Your task to perform on an android device: turn off sleep mode Image 0: 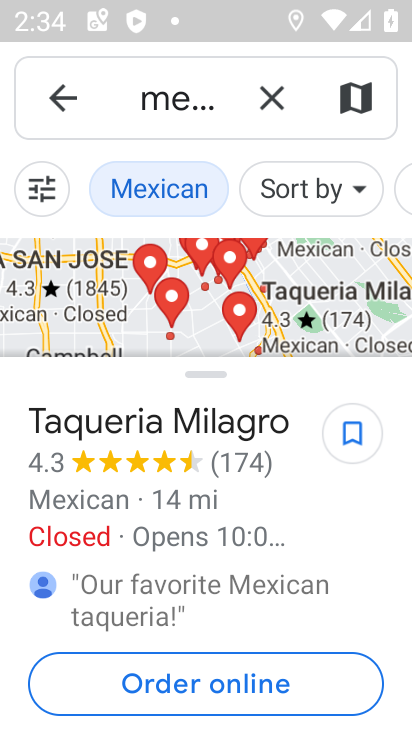
Step 0: press back button
Your task to perform on an android device: turn off sleep mode Image 1: 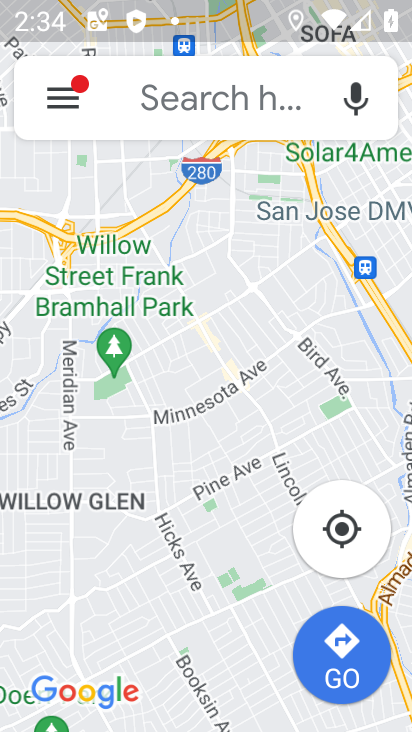
Step 1: press back button
Your task to perform on an android device: turn off sleep mode Image 2: 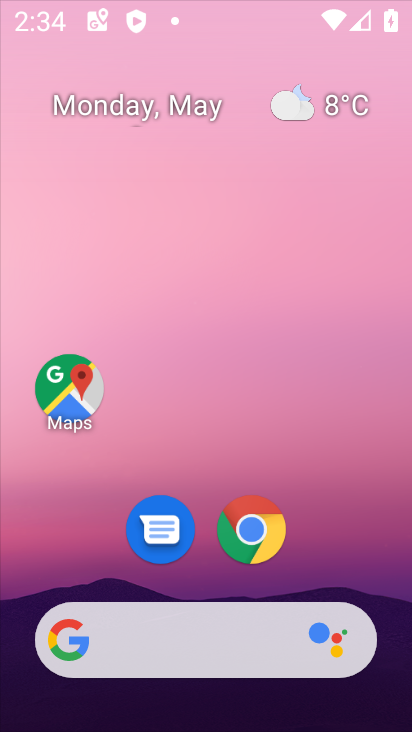
Step 2: press home button
Your task to perform on an android device: turn off sleep mode Image 3: 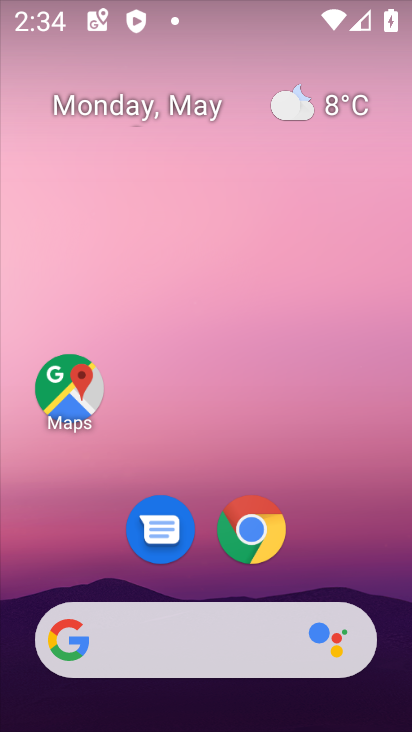
Step 3: drag from (103, 624) to (153, 462)
Your task to perform on an android device: turn off sleep mode Image 4: 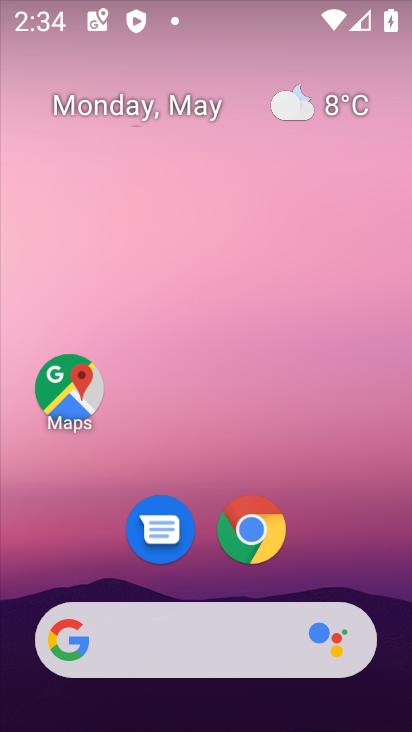
Step 4: drag from (76, 594) to (174, 274)
Your task to perform on an android device: turn off sleep mode Image 5: 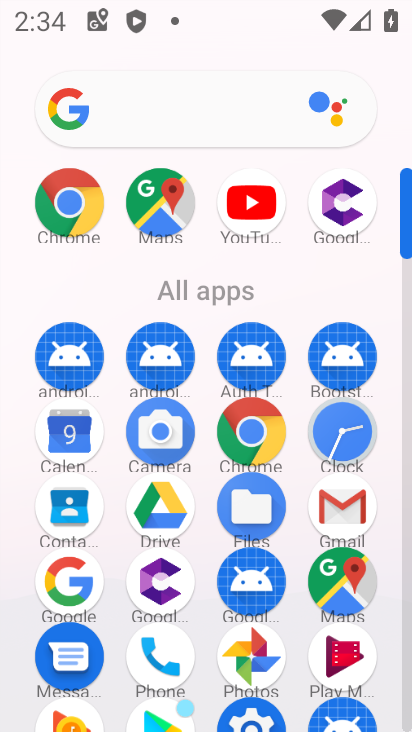
Step 5: click (242, 644)
Your task to perform on an android device: turn off sleep mode Image 6: 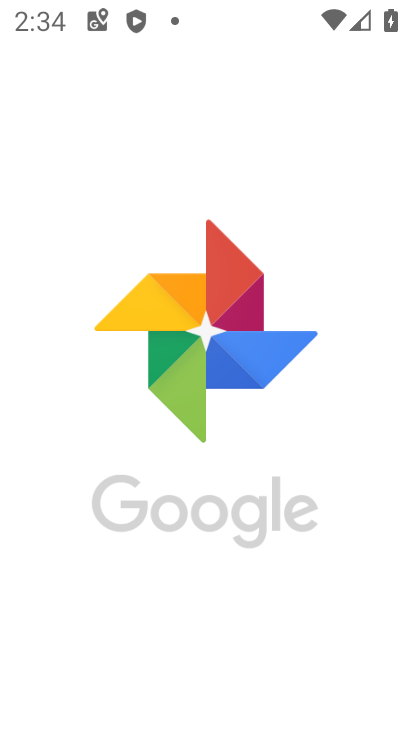
Step 6: drag from (185, 647) to (201, 583)
Your task to perform on an android device: turn off sleep mode Image 7: 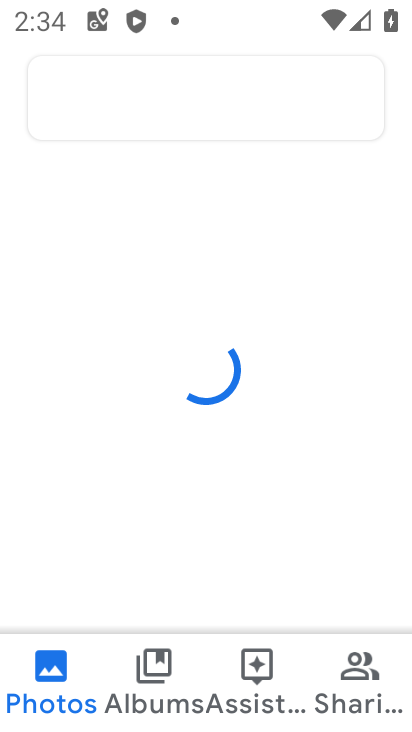
Step 7: press back button
Your task to perform on an android device: turn off sleep mode Image 8: 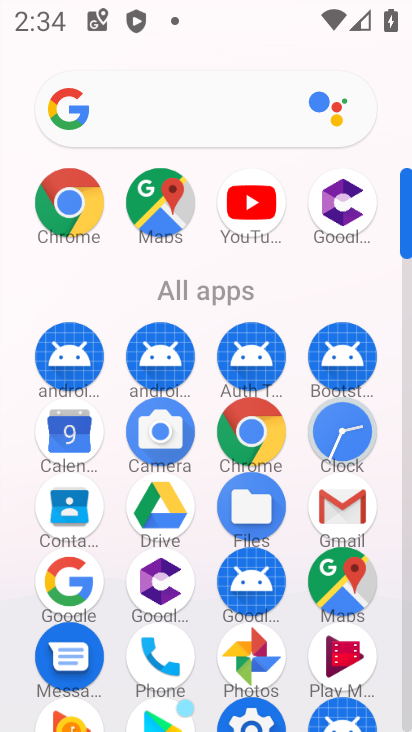
Step 8: drag from (192, 630) to (240, 450)
Your task to perform on an android device: turn off sleep mode Image 9: 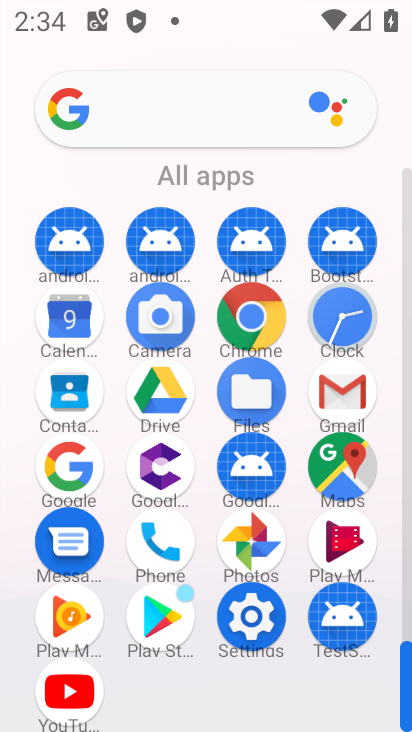
Step 9: click (261, 630)
Your task to perform on an android device: turn off sleep mode Image 10: 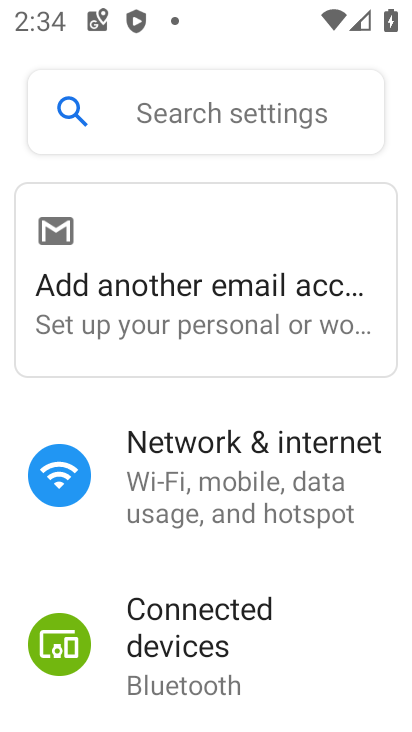
Step 10: drag from (261, 630) to (306, 527)
Your task to perform on an android device: turn off sleep mode Image 11: 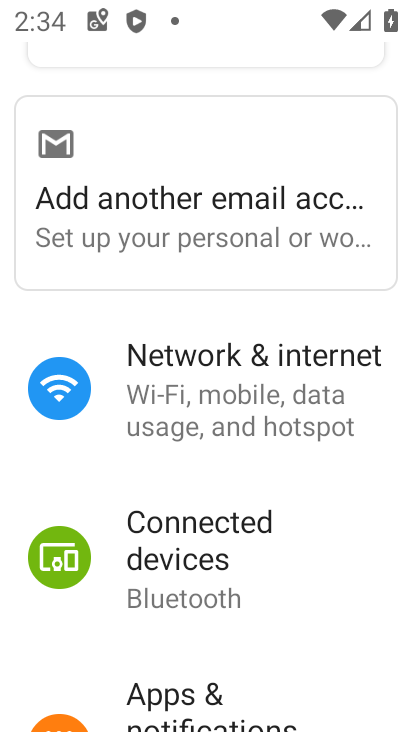
Step 11: drag from (257, 681) to (373, 388)
Your task to perform on an android device: turn off sleep mode Image 12: 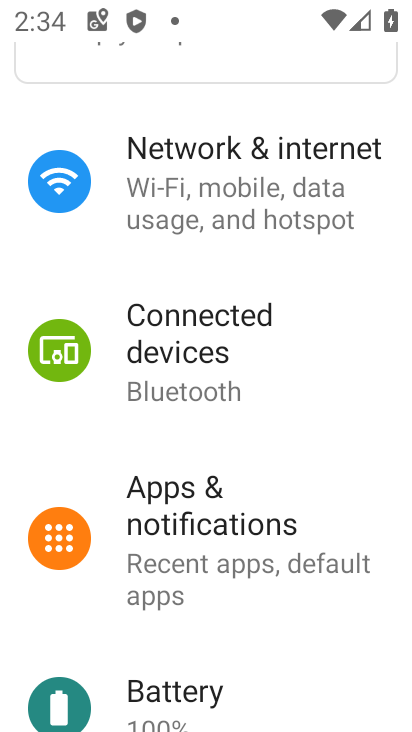
Step 12: drag from (254, 695) to (307, 565)
Your task to perform on an android device: turn off sleep mode Image 13: 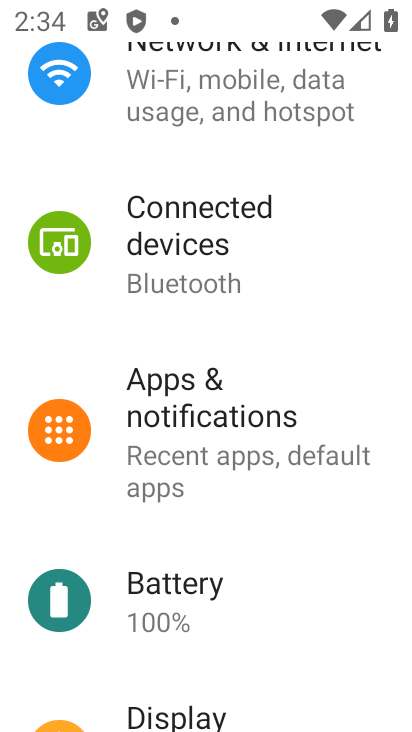
Step 13: drag from (310, 561) to (347, 397)
Your task to perform on an android device: turn off sleep mode Image 14: 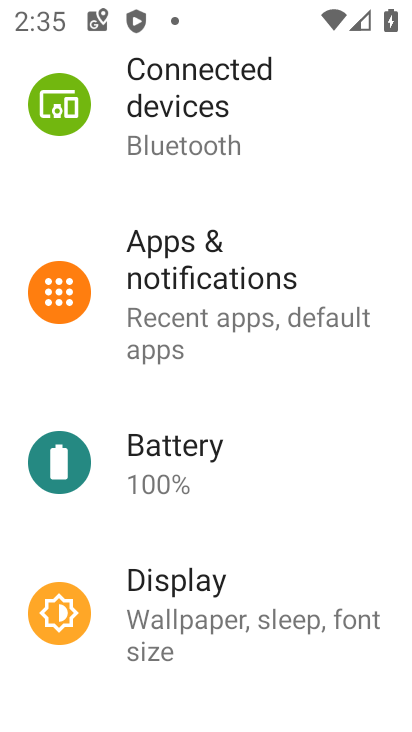
Step 14: click (260, 637)
Your task to perform on an android device: turn off sleep mode Image 15: 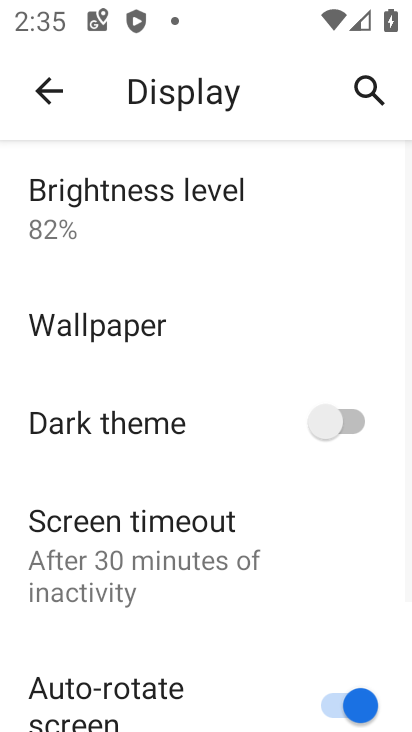
Step 15: click (260, 637)
Your task to perform on an android device: turn off sleep mode Image 16: 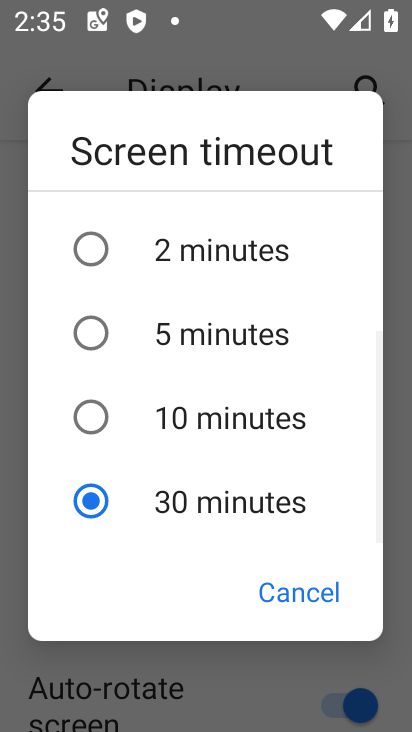
Step 16: click (308, 578)
Your task to perform on an android device: turn off sleep mode Image 17: 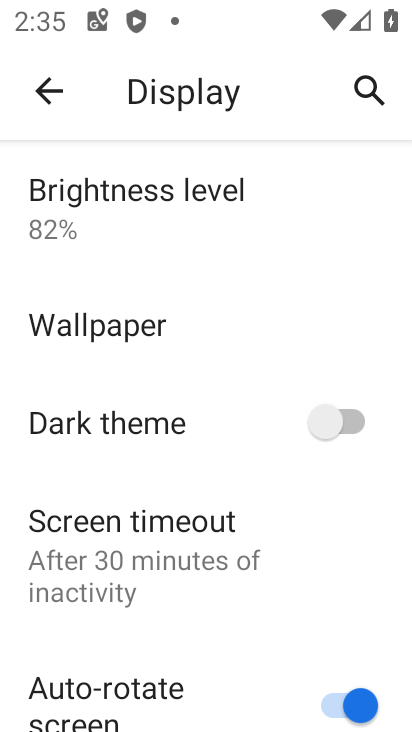
Step 17: task complete